Your task to perform on an android device: open sync settings in chrome Image 0: 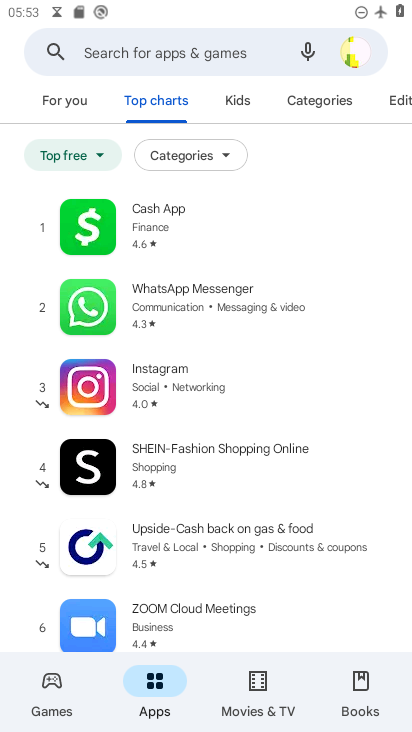
Step 0: press home button
Your task to perform on an android device: open sync settings in chrome Image 1: 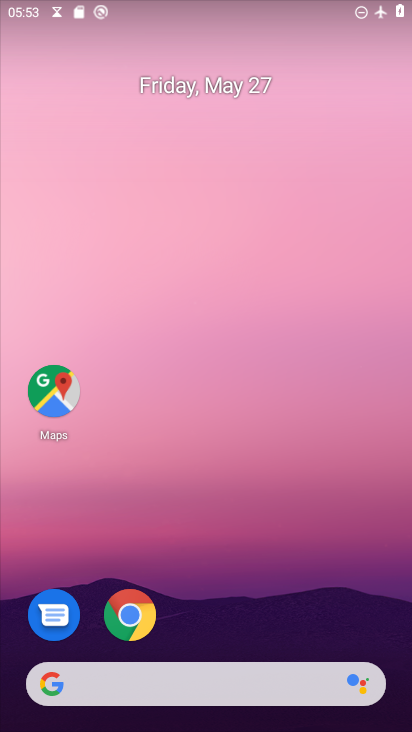
Step 1: click (143, 618)
Your task to perform on an android device: open sync settings in chrome Image 2: 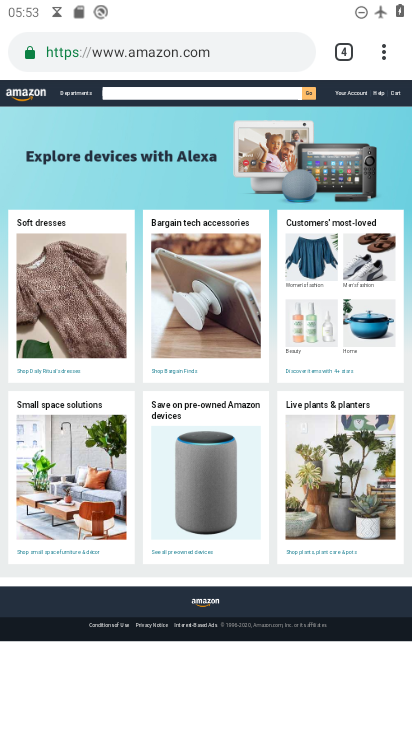
Step 2: click (384, 47)
Your task to perform on an android device: open sync settings in chrome Image 3: 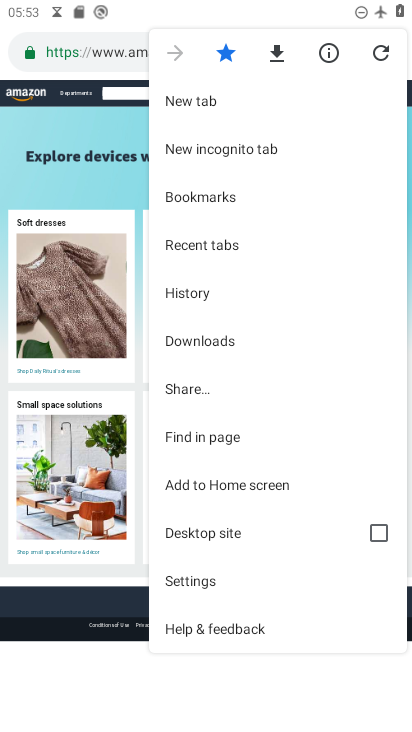
Step 3: click (213, 579)
Your task to perform on an android device: open sync settings in chrome Image 4: 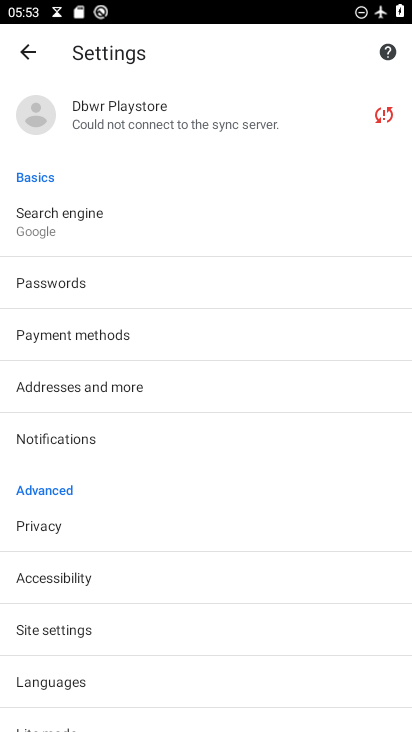
Step 4: click (130, 635)
Your task to perform on an android device: open sync settings in chrome Image 5: 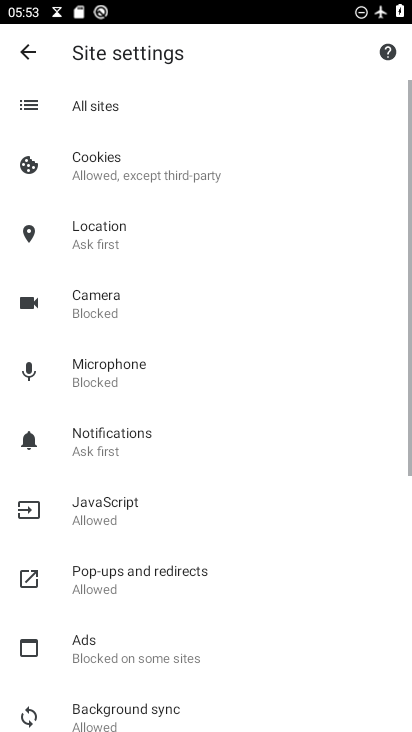
Step 5: click (145, 710)
Your task to perform on an android device: open sync settings in chrome Image 6: 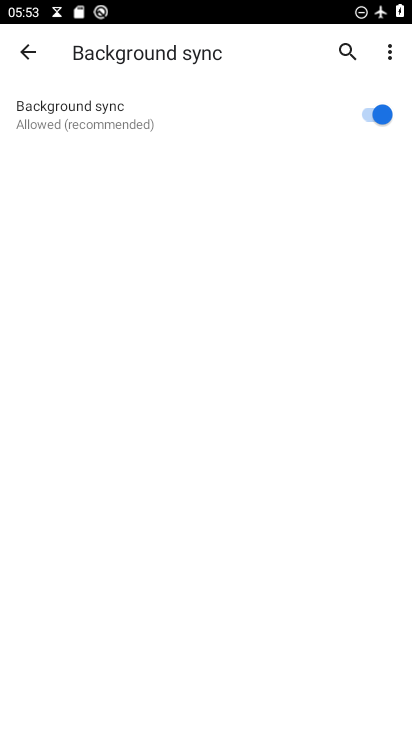
Step 6: task complete